Your task to perform on an android device: Is it going to rain this weekend? Image 0: 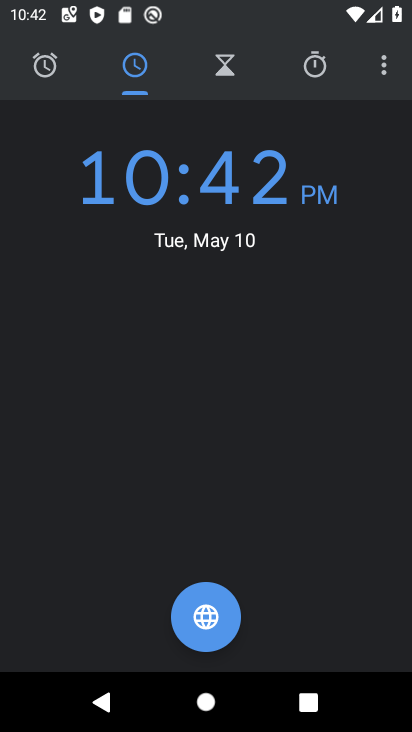
Step 0: press home button
Your task to perform on an android device: Is it going to rain this weekend? Image 1: 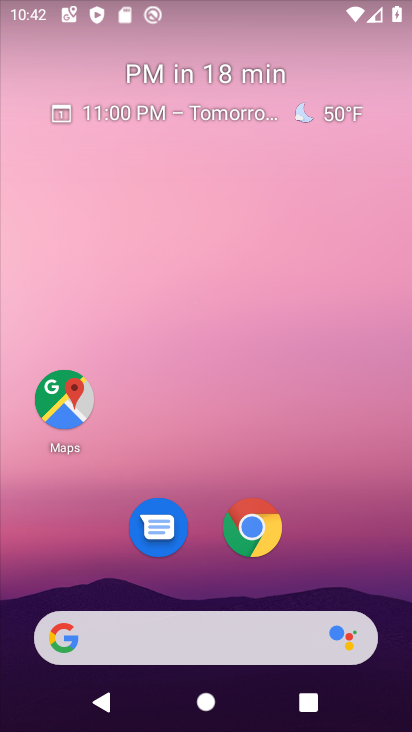
Step 1: drag from (355, 550) to (321, 184)
Your task to perform on an android device: Is it going to rain this weekend? Image 2: 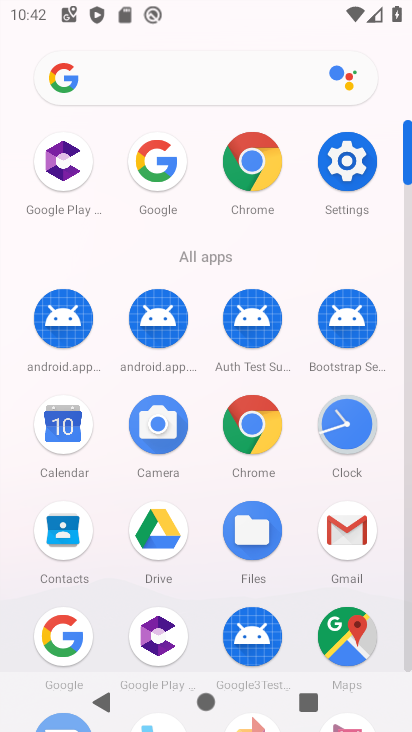
Step 2: click (243, 427)
Your task to perform on an android device: Is it going to rain this weekend? Image 3: 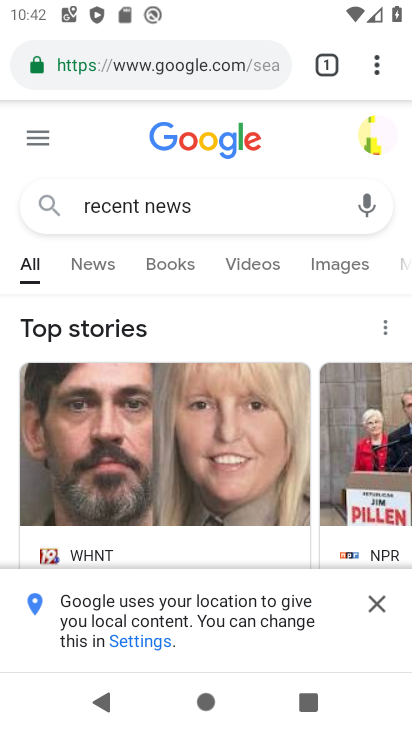
Step 3: click (215, 213)
Your task to perform on an android device: Is it going to rain this weekend? Image 4: 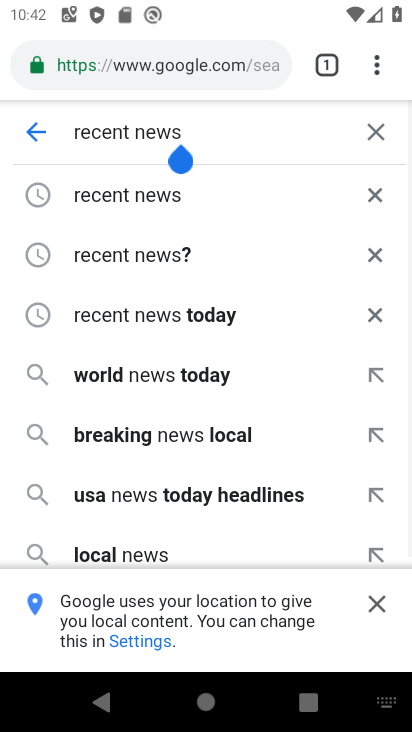
Step 4: click (219, 67)
Your task to perform on an android device: Is it going to rain this weekend? Image 5: 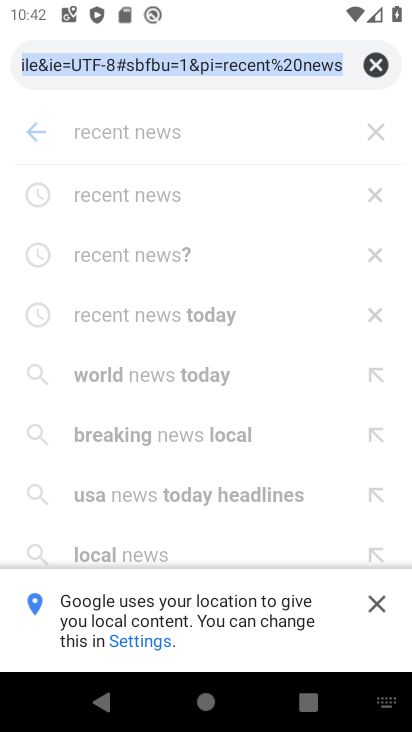
Step 5: click (376, 72)
Your task to perform on an android device: Is it going to rain this weekend? Image 6: 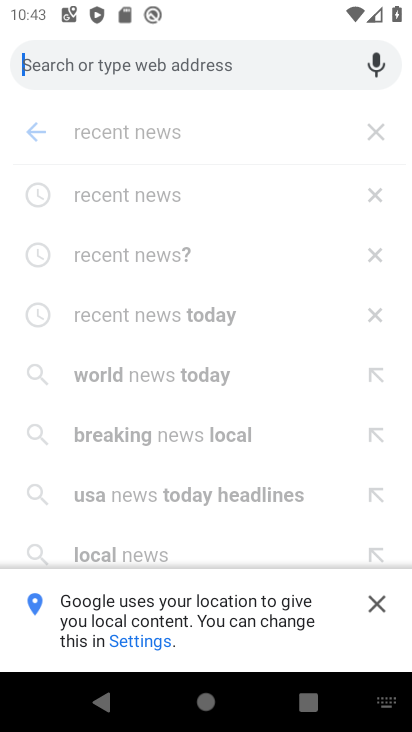
Step 6: type "is it going to rain this weekend"
Your task to perform on an android device: Is it going to rain this weekend? Image 7: 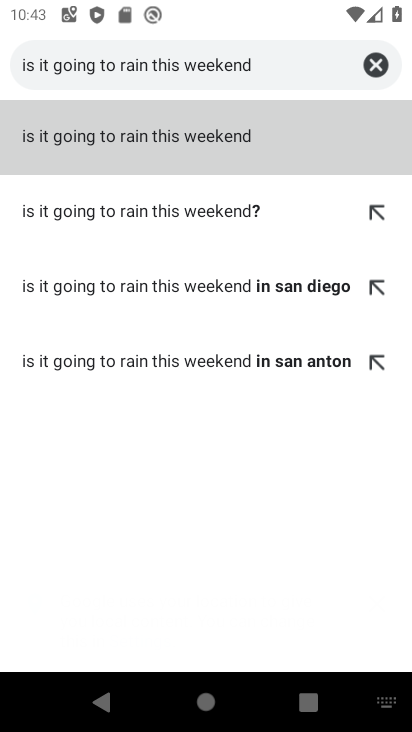
Step 7: click (157, 147)
Your task to perform on an android device: Is it going to rain this weekend? Image 8: 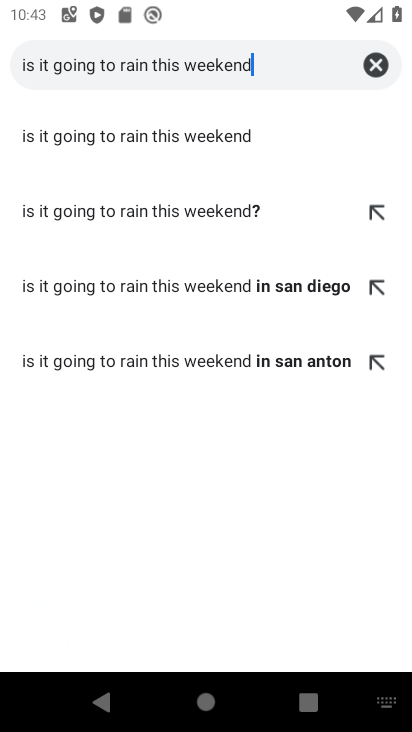
Step 8: click (144, 139)
Your task to perform on an android device: Is it going to rain this weekend? Image 9: 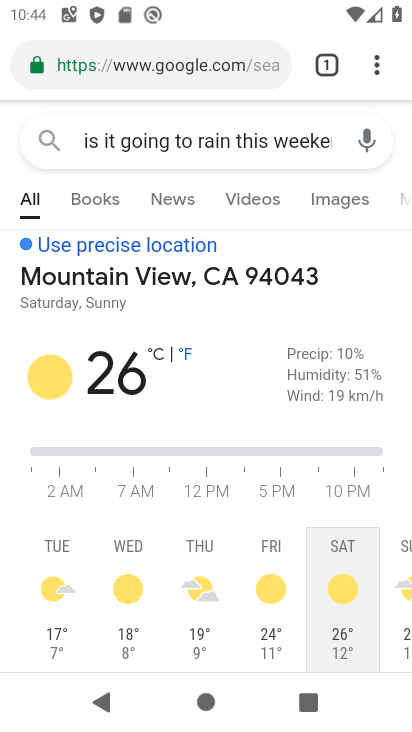
Step 9: task complete